Your task to perform on an android device: see sites visited before in the chrome app Image 0: 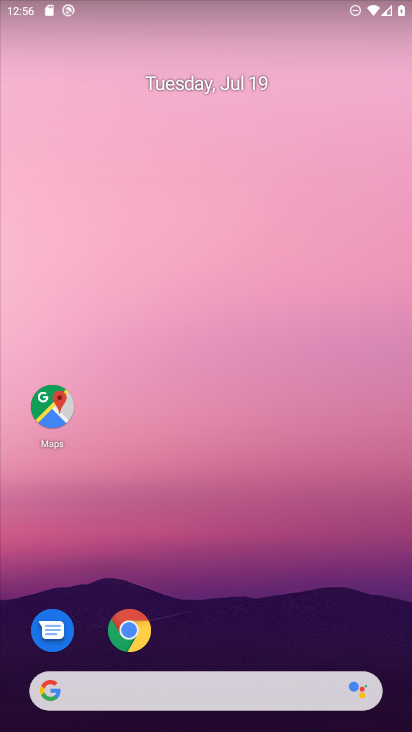
Step 0: press home button
Your task to perform on an android device: see sites visited before in the chrome app Image 1: 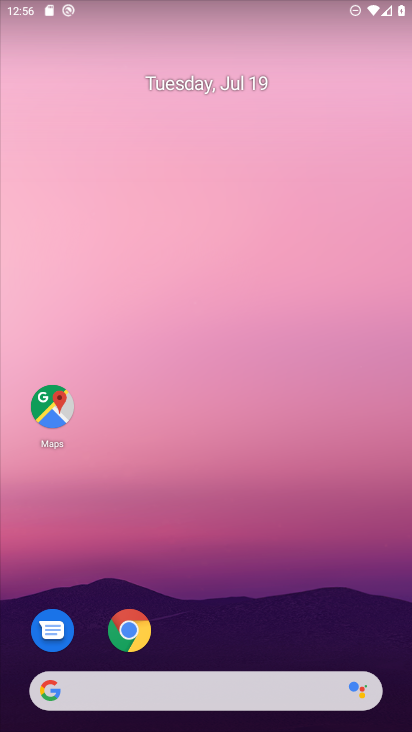
Step 1: click (133, 632)
Your task to perform on an android device: see sites visited before in the chrome app Image 2: 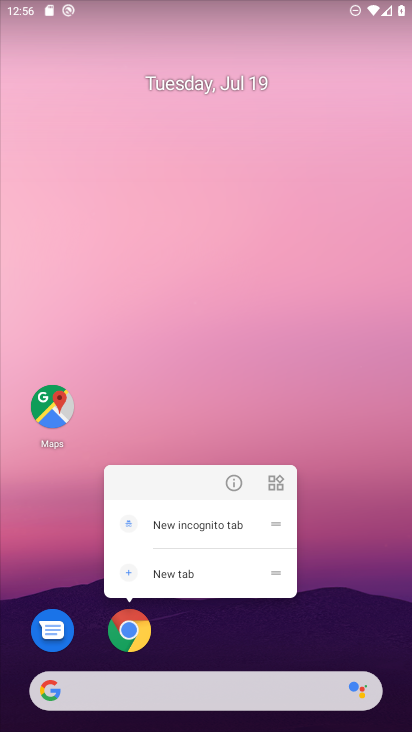
Step 2: click (130, 637)
Your task to perform on an android device: see sites visited before in the chrome app Image 3: 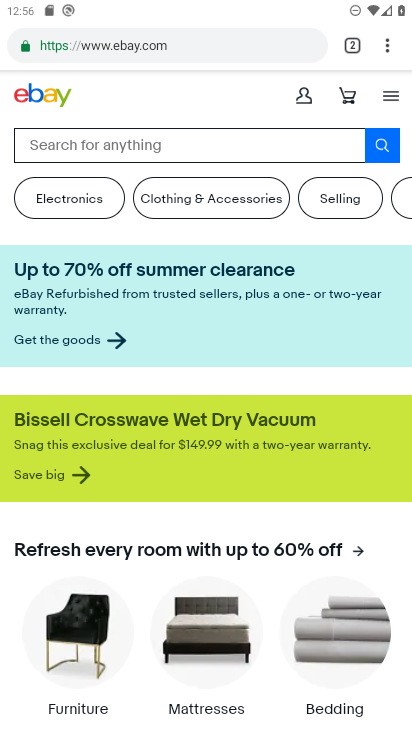
Step 3: task complete